Your task to perform on an android device: set the stopwatch Image 0: 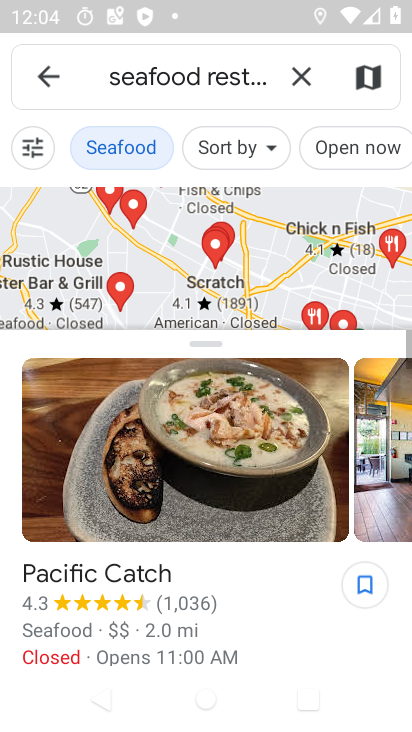
Step 0: press home button
Your task to perform on an android device: set the stopwatch Image 1: 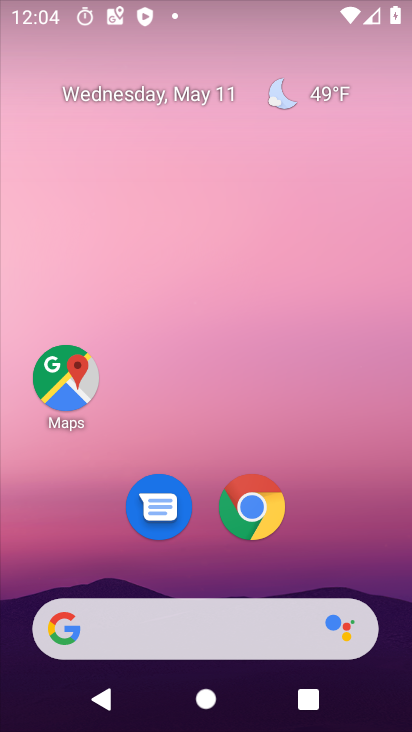
Step 1: drag from (224, 566) to (215, 34)
Your task to perform on an android device: set the stopwatch Image 2: 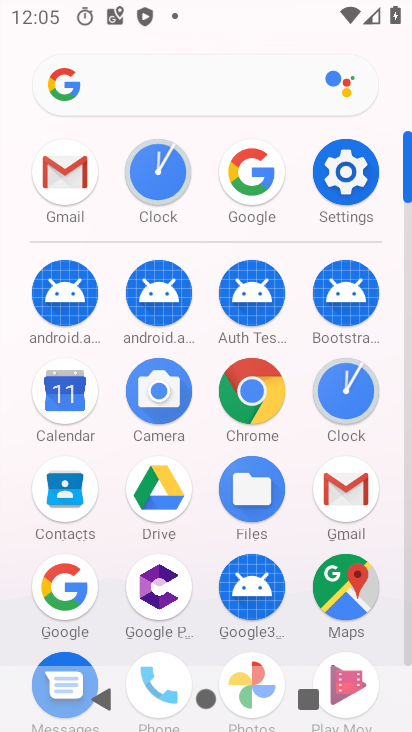
Step 2: click (348, 395)
Your task to perform on an android device: set the stopwatch Image 3: 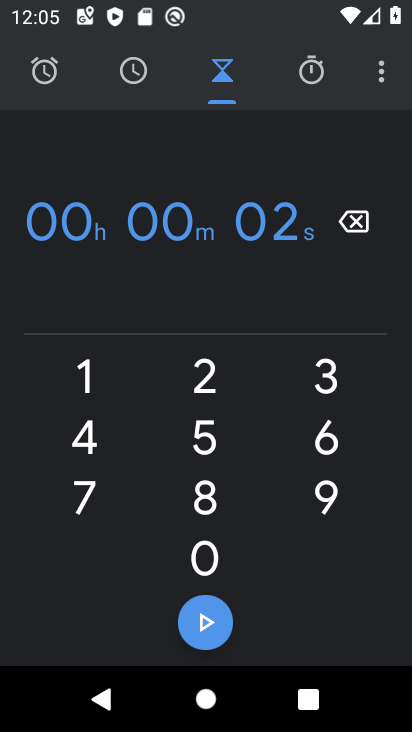
Step 3: click (316, 66)
Your task to perform on an android device: set the stopwatch Image 4: 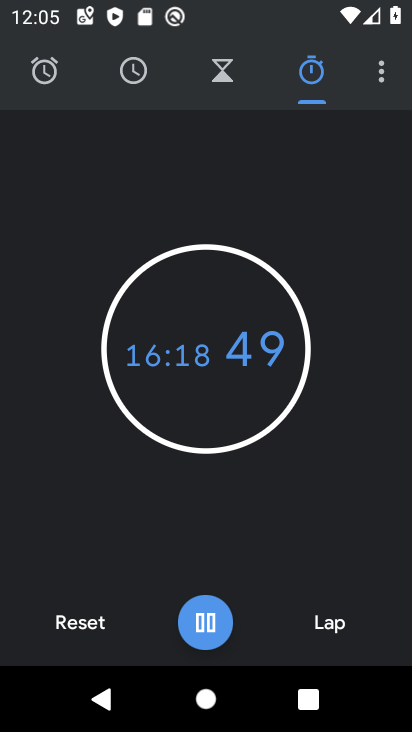
Step 4: click (202, 623)
Your task to perform on an android device: set the stopwatch Image 5: 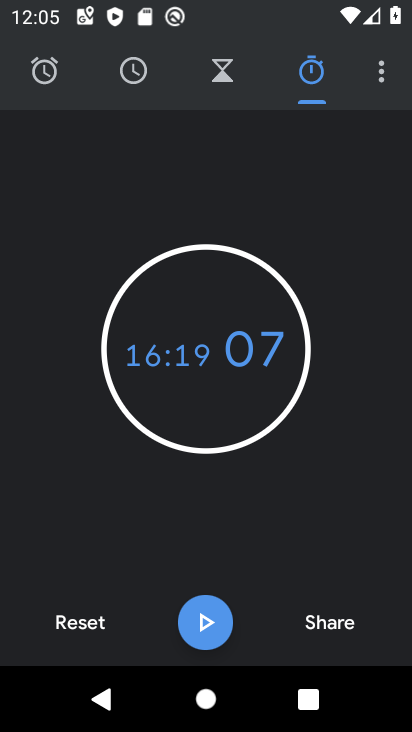
Step 5: task complete